Your task to perform on an android device: Go to location settings Image 0: 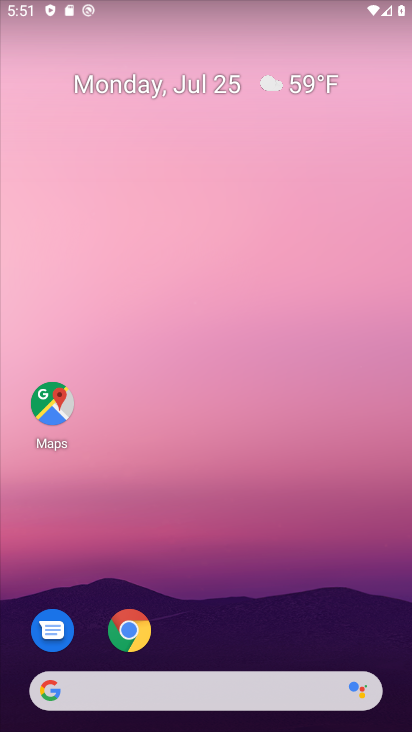
Step 0: drag from (211, 614) to (206, 23)
Your task to perform on an android device: Go to location settings Image 1: 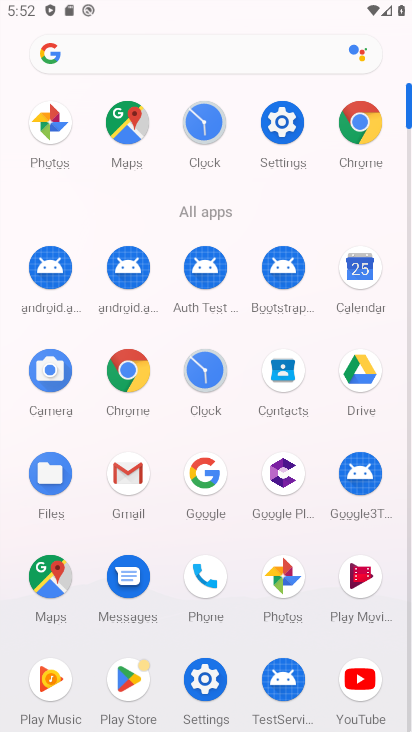
Step 1: click (279, 125)
Your task to perform on an android device: Go to location settings Image 2: 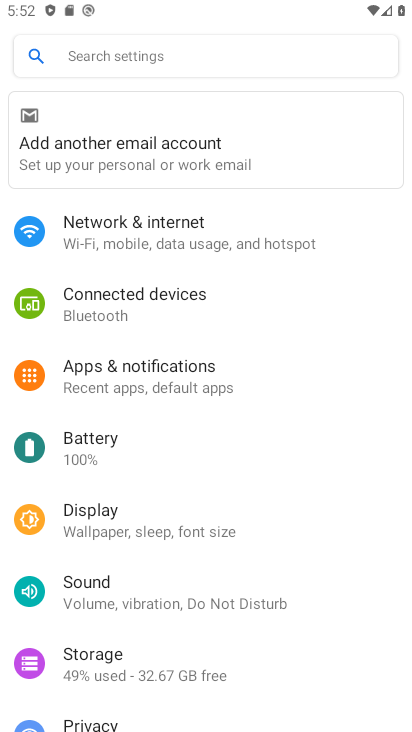
Step 2: drag from (148, 632) to (176, 208)
Your task to perform on an android device: Go to location settings Image 3: 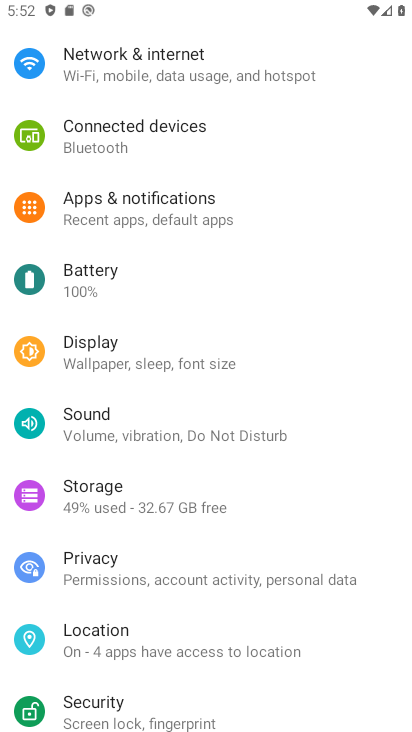
Step 3: click (72, 654)
Your task to perform on an android device: Go to location settings Image 4: 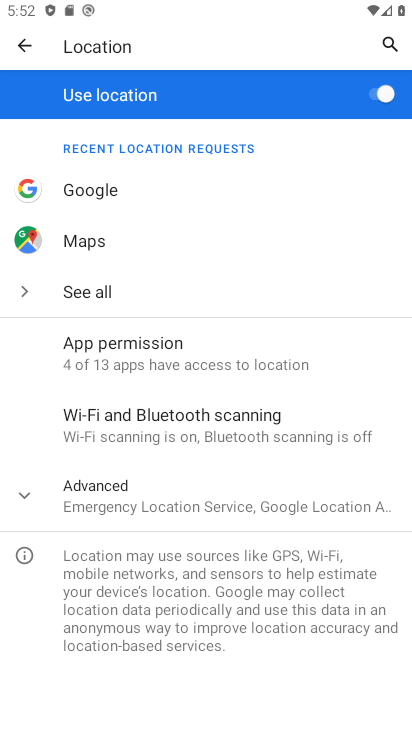
Step 4: task complete